Your task to perform on an android device: Go to Maps Image 0: 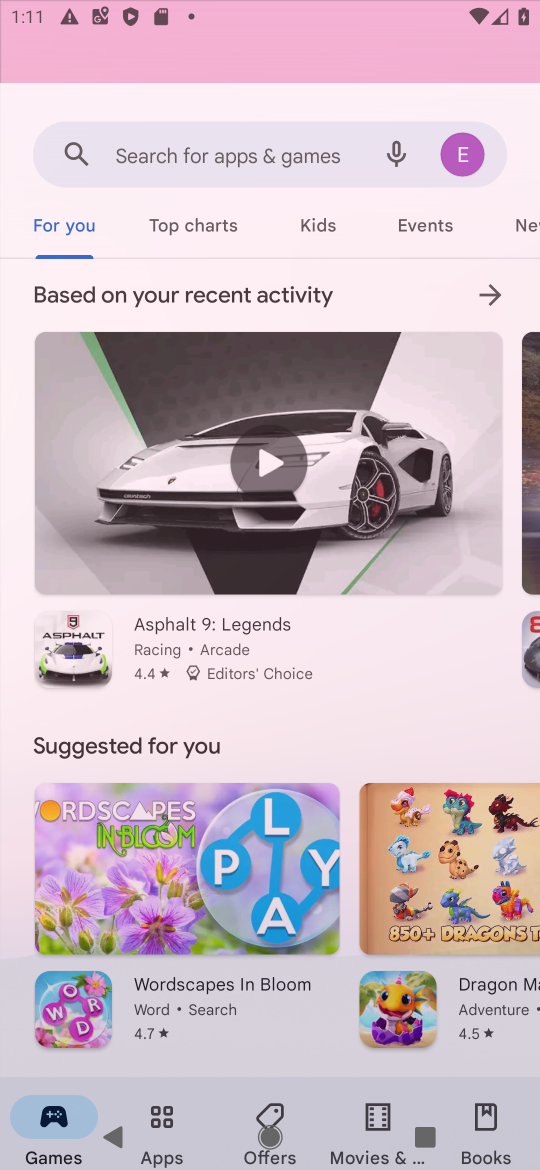
Step 0: press back button
Your task to perform on an android device: Go to Maps Image 1: 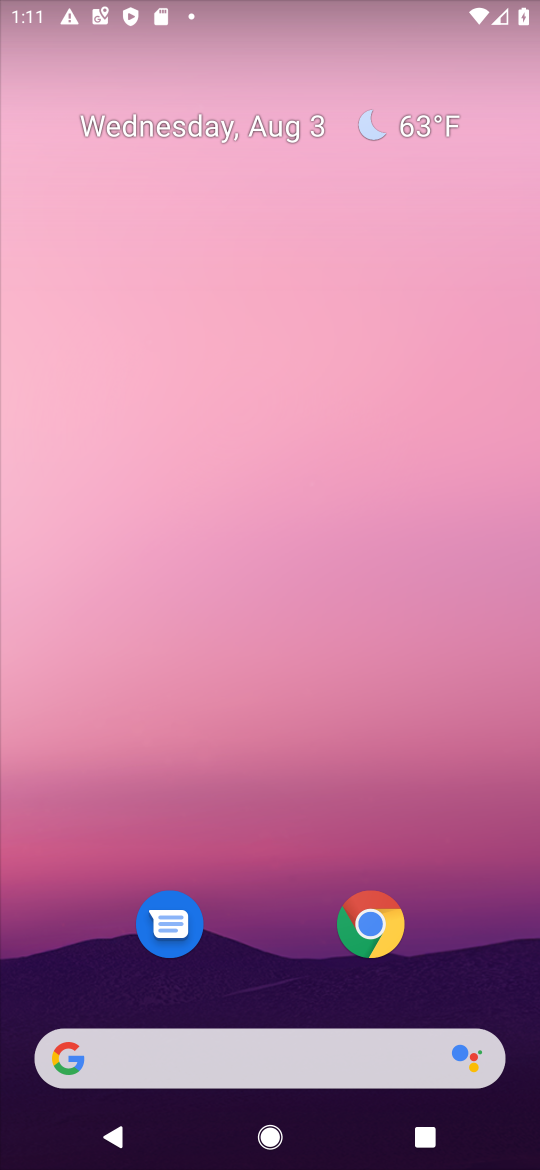
Step 1: drag from (281, 875) to (289, 10)
Your task to perform on an android device: Go to Maps Image 2: 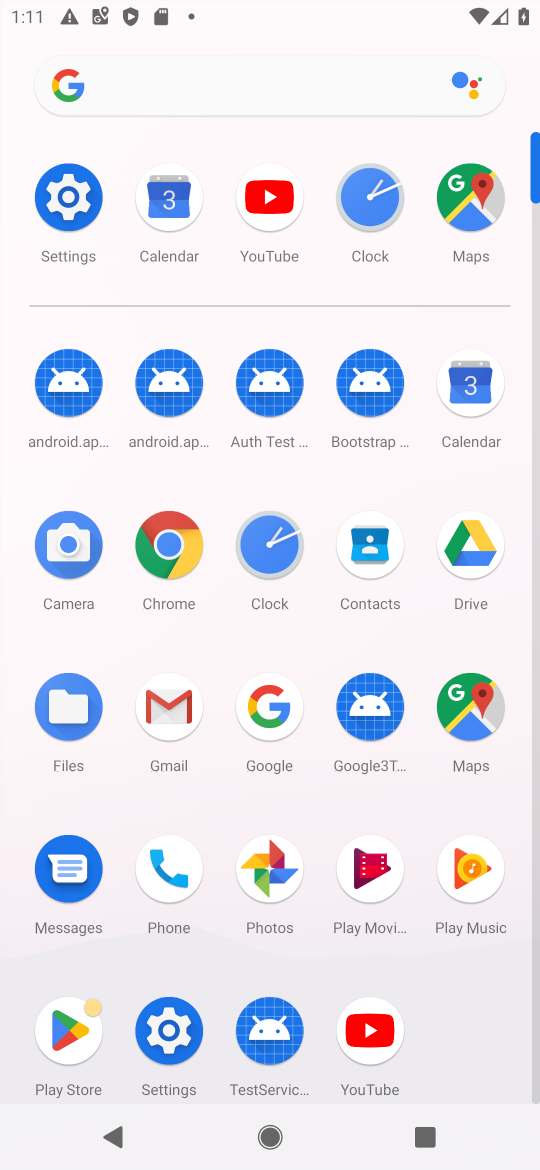
Step 2: click (475, 182)
Your task to perform on an android device: Go to Maps Image 3: 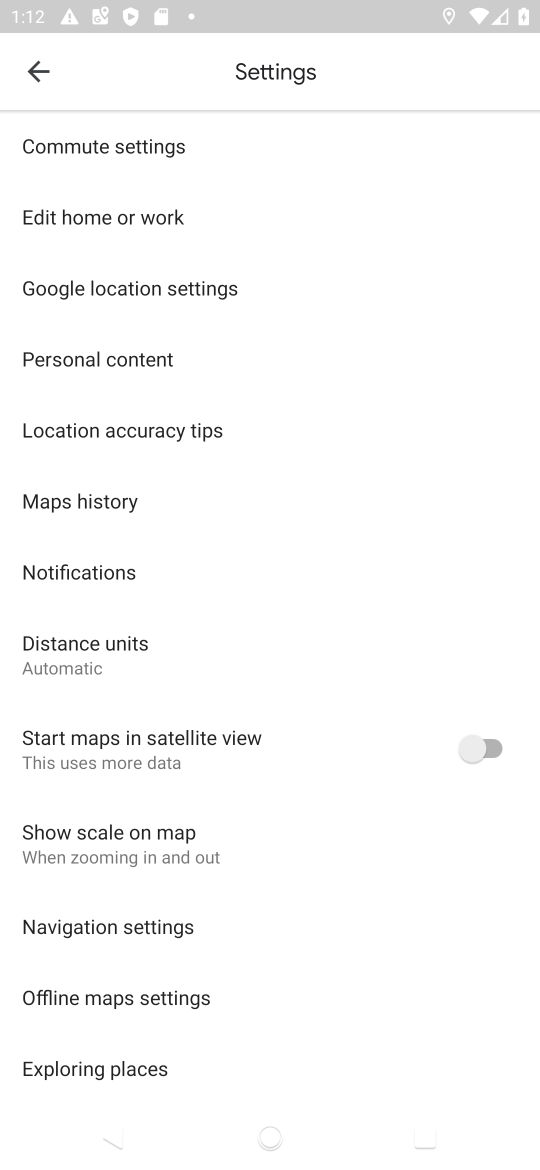
Step 3: click (35, 63)
Your task to perform on an android device: Go to Maps Image 4: 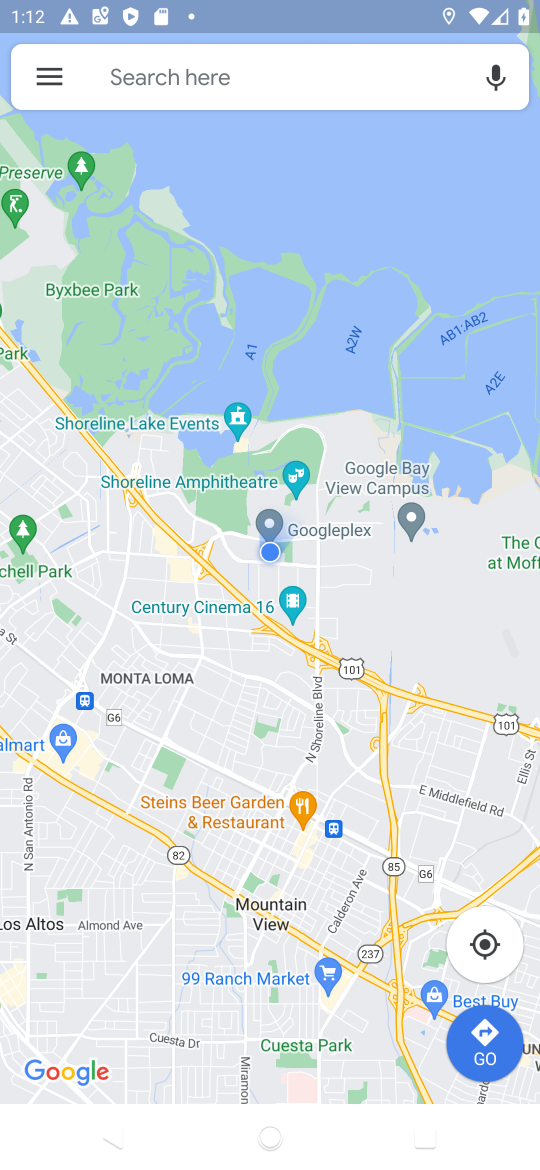
Step 4: task complete